Your task to perform on an android device: change timer sound Image 0: 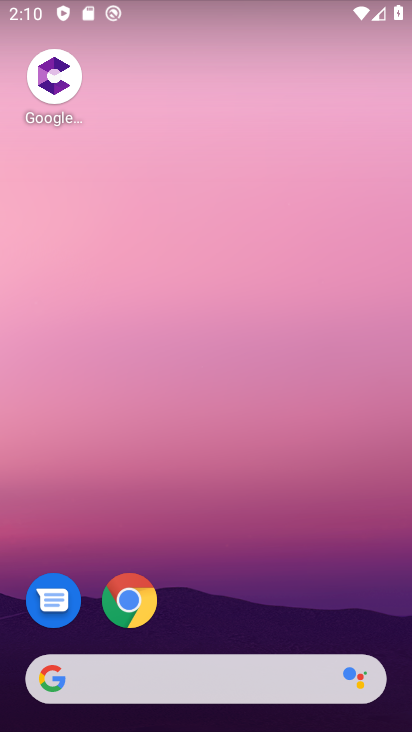
Step 0: drag from (271, 704) to (265, 149)
Your task to perform on an android device: change timer sound Image 1: 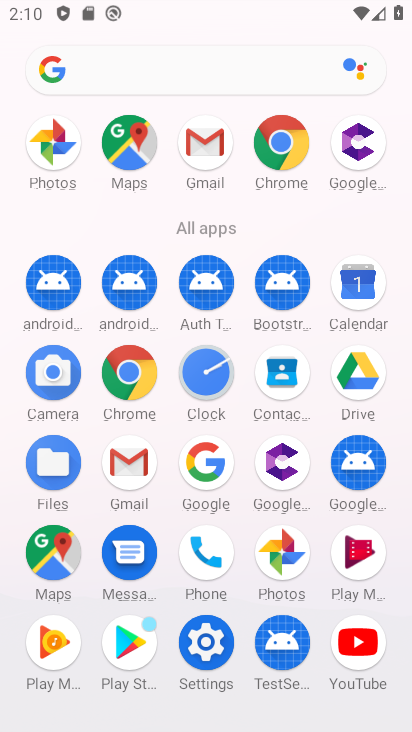
Step 1: click (203, 378)
Your task to perform on an android device: change timer sound Image 2: 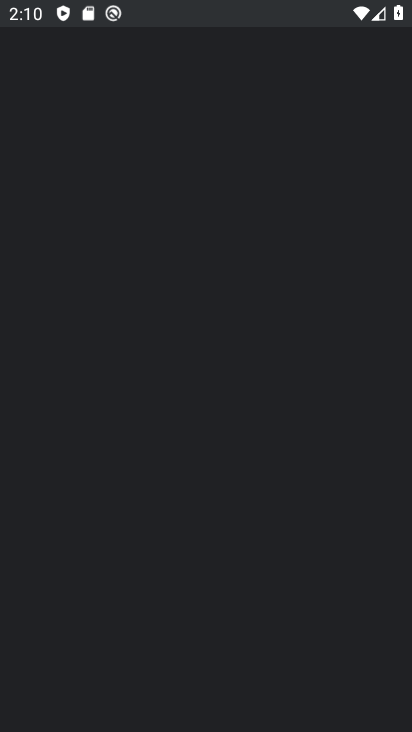
Step 2: click (205, 378)
Your task to perform on an android device: change timer sound Image 3: 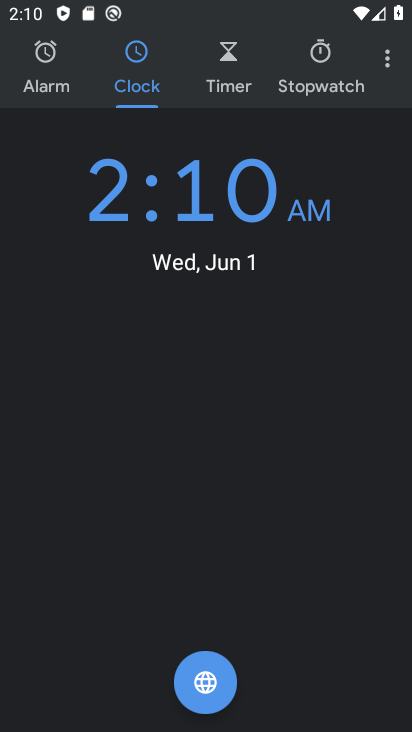
Step 3: click (388, 65)
Your task to perform on an android device: change timer sound Image 4: 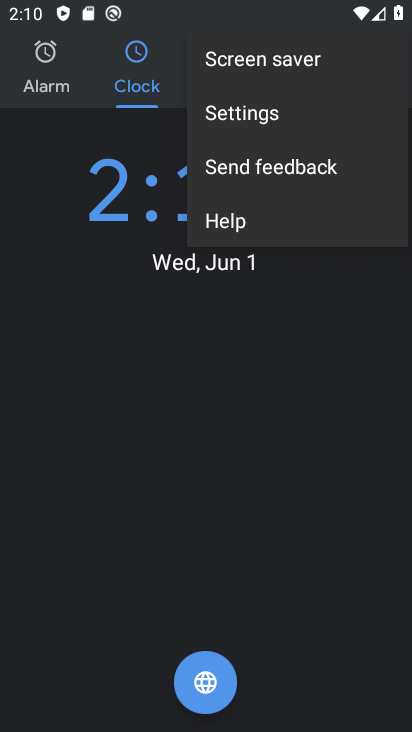
Step 4: click (388, 65)
Your task to perform on an android device: change timer sound Image 5: 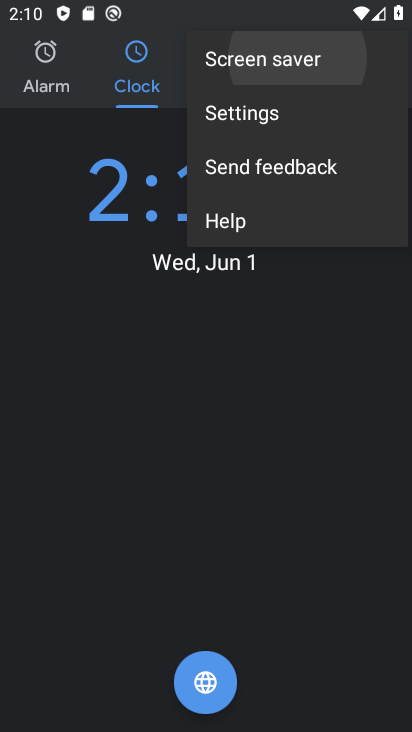
Step 5: drag from (388, 65) to (240, 136)
Your task to perform on an android device: change timer sound Image 6: 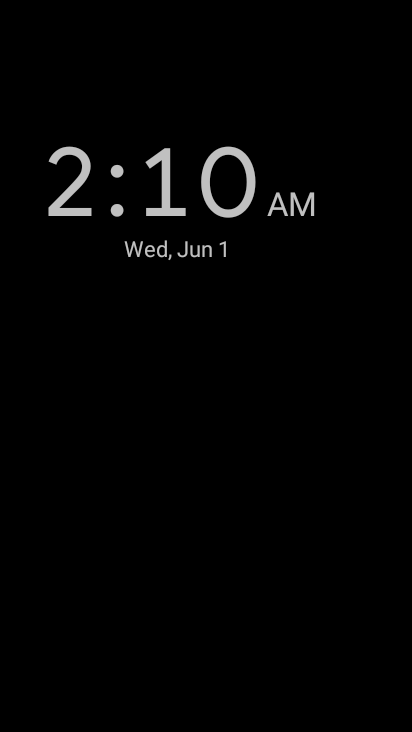
Step 6: press back button
Your task to perform on an android device: change timer sound Image 7: 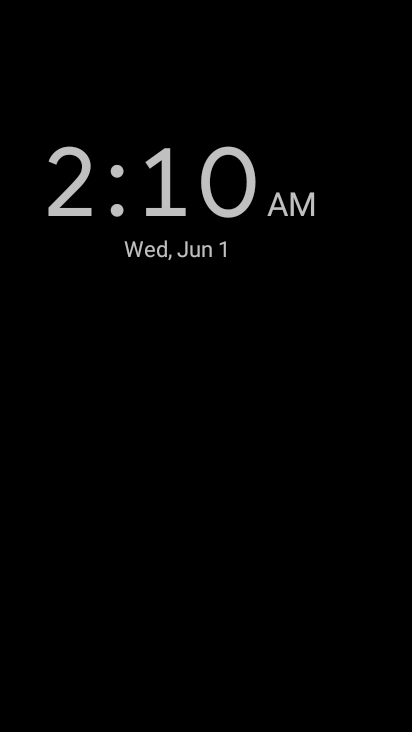
Step 7: press back button
Your task to perform on an android device: change timer sound Image 8: 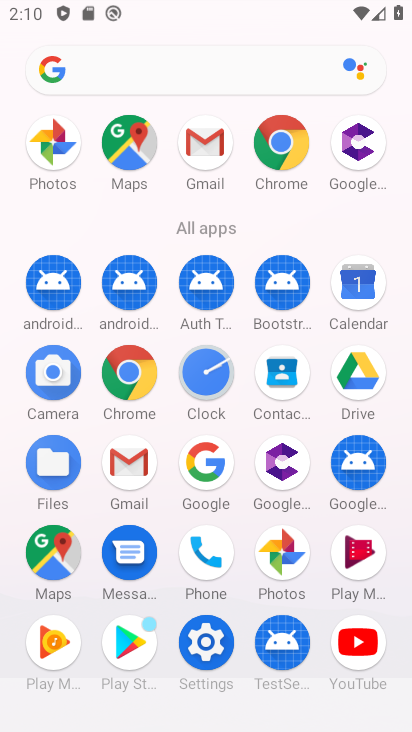
Step 8: click (213, 365)
Your task to perform on an android device: change timer sound Image 9: 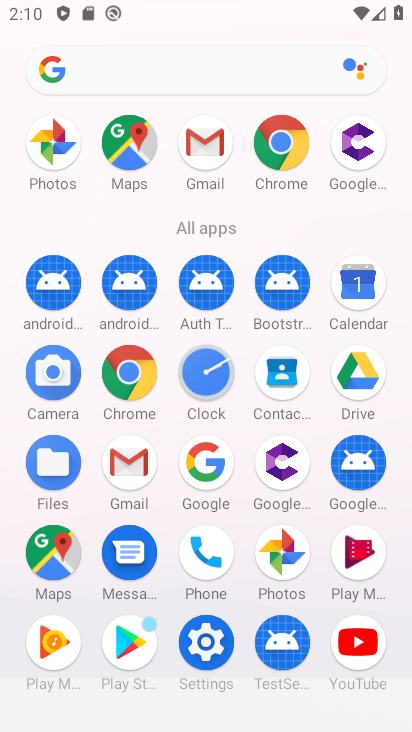
Step 9: click (215, 367)
Your task to perform on an android device: change timer sound Image 10: 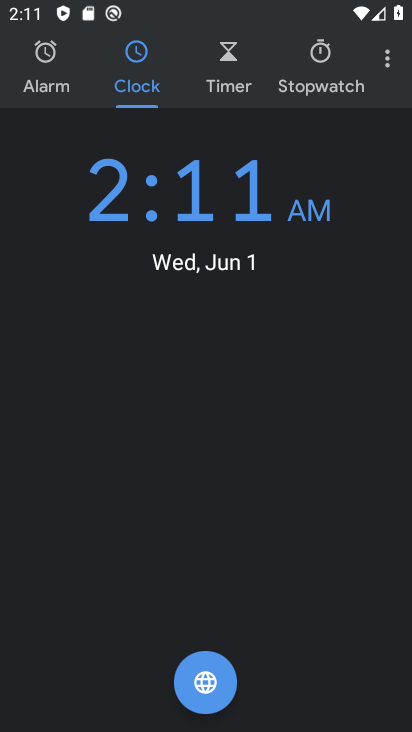
Step 10: click (376, 59)
Your task to perform on an android device: change timer sound Image 11: 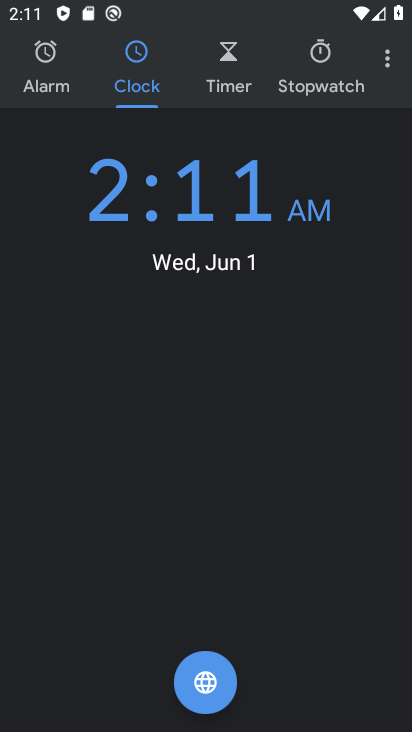
Step 11: click (391, 55)
Your task to perform on an android device: change timer sound Image 12: 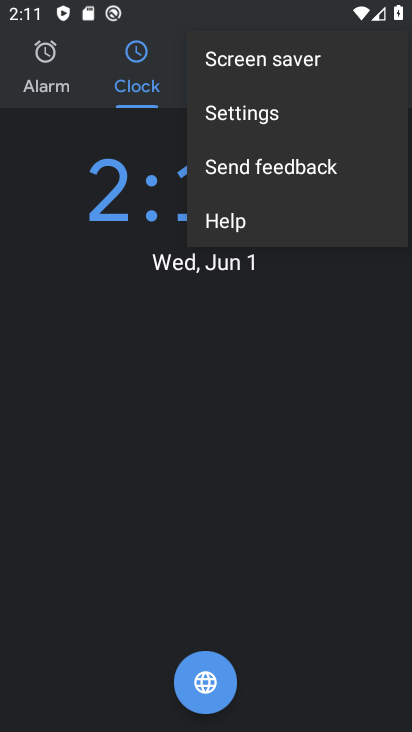
Step 12: click (241, 107)
Your task to perform on an android device: change timer sound Image 13: 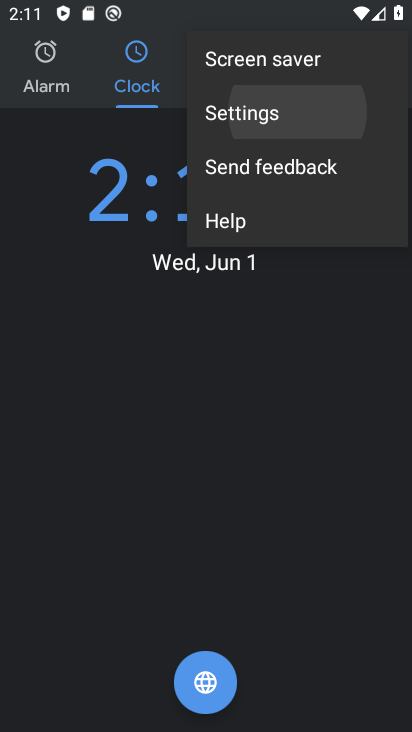
Step 13: click (241, 107)
Your task to perform on an android device: change timer sound Image 14: 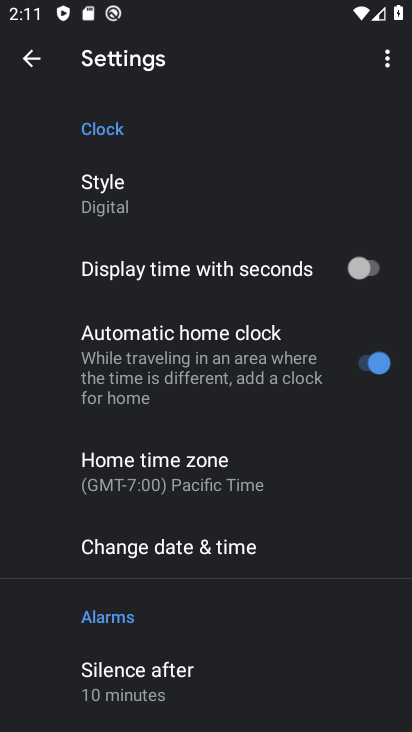
Step 14: drag from (179, 588) to (142, 324)
Your task to perform on an android device: change timer sound Image 15: 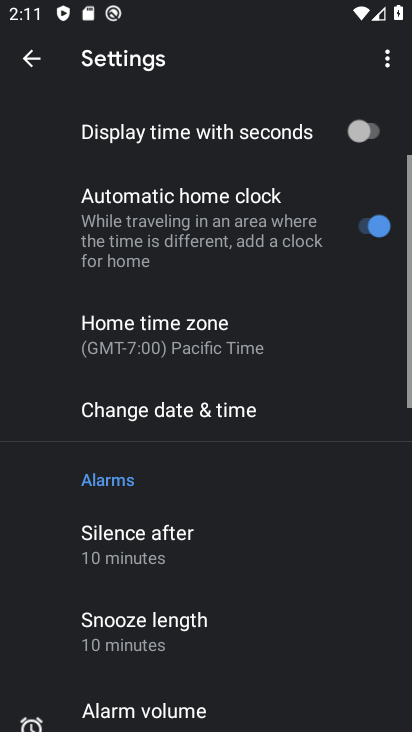
Step 15: drag from (212, 550) to (170, 295)
Your task to perform on an android device: change timer sound Image 16: 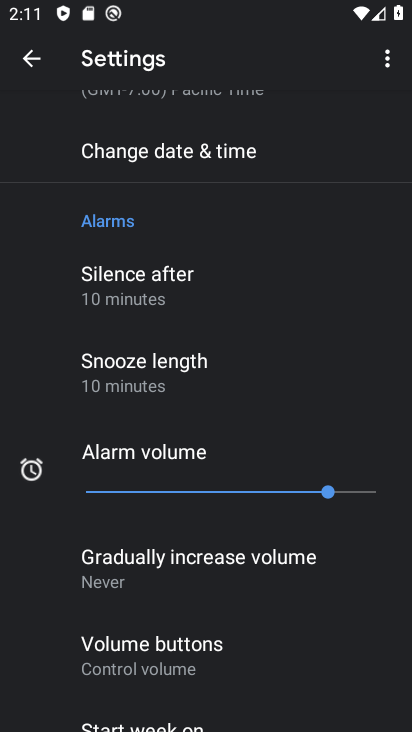
Step 16: drag from (164, 646) to (184, 182)
Your task to perform on an android device: change timer sound Image 17: 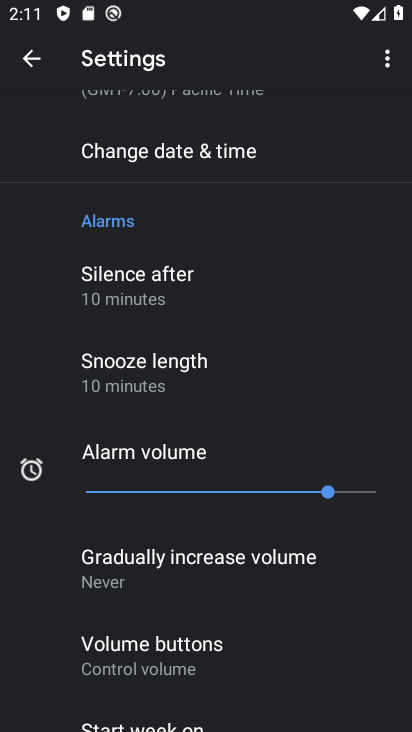
Step 17: drag from (179, 504) to (165, 215)
Your task to perform on an android device: change timer sound Image 18: 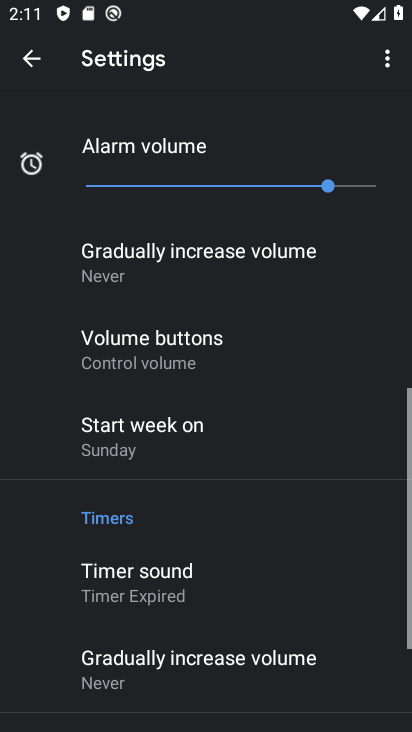
Step 18: drag from (199, 493) to (227, 185)
Your task to perform on an android device: change timer sound Image 19: 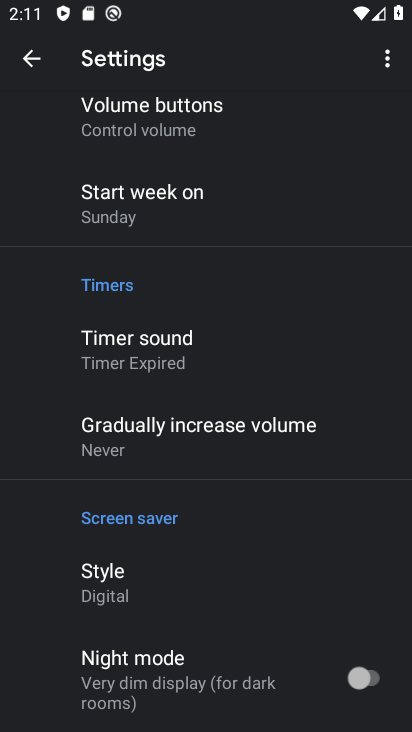
Step 19: click (149, 346)
Your task to perform on an android device: change timer sound Image 20: 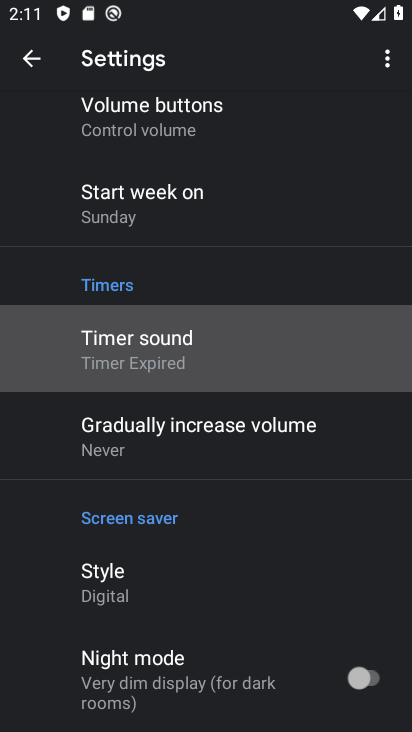
Step 20: click (149, 346)
Your task to perform on an android device: change timer sound Image 21: 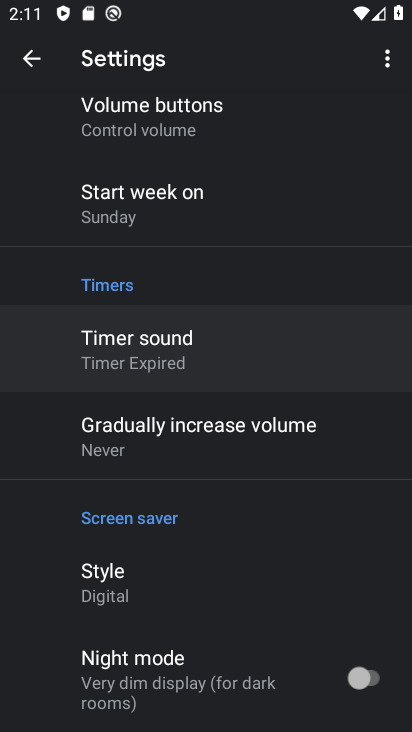
Step 21: click (149, 346)
Your task to perform on an android device: change timer sound Image 22: 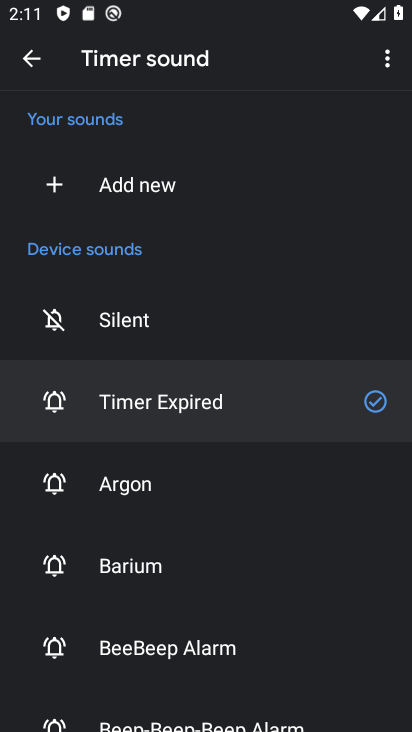
Step 22: click (62, 487)
Your task to perform on an android device: change timer sound Image 23: 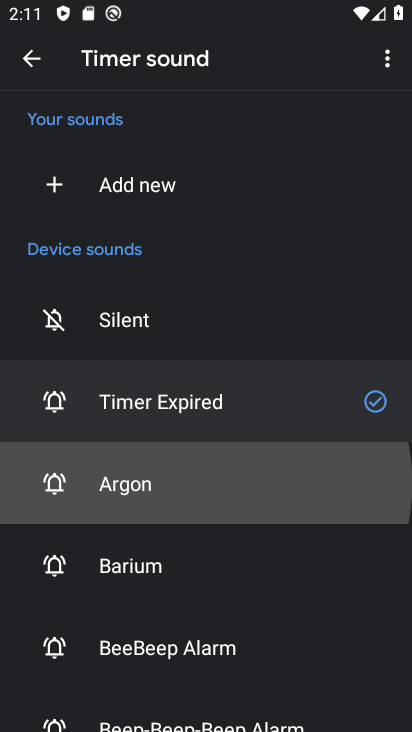
Step 23: click (62, 487)
Your task to perform on an android device: change timer sound Image 24: 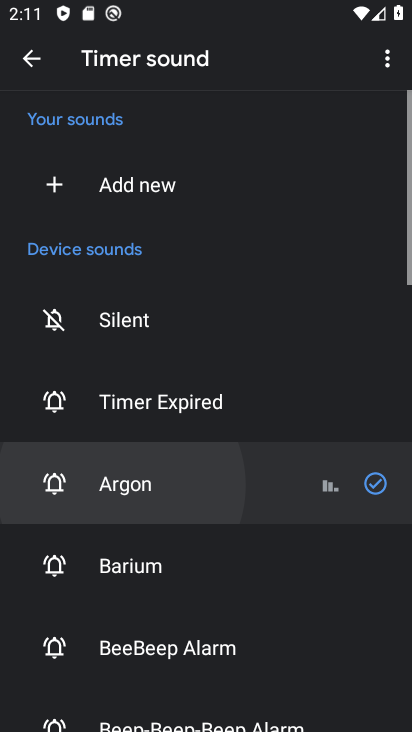
Step 24: click (62, 487)
Your task to perform on an android device: change timer sound Image 25: 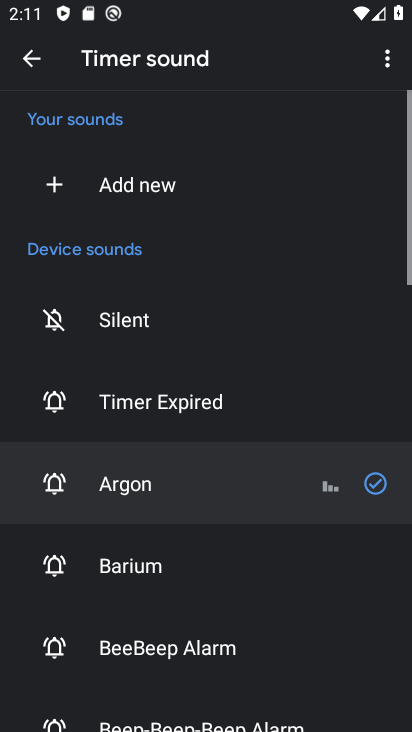
Step 25: task complete